Your task to perform on an android device: visit the assistant section in the google photos Image 0: 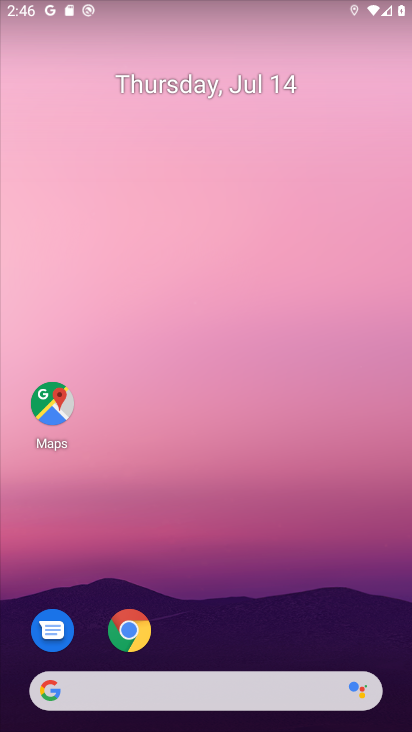
Step 0: drag from (225, 445) to (113, 71)
Your task to perform on an android device: visit the assistant section in the google photos Image 1: 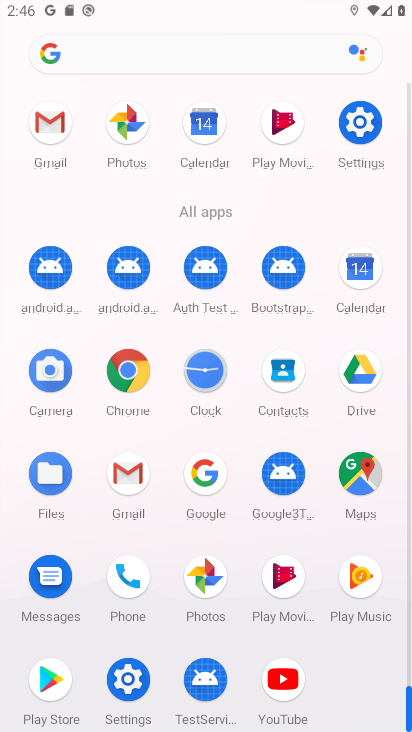
Step 1: click (219, 575)
Your task to perform on an android device: visit the assistant section in the google photos Image 2: 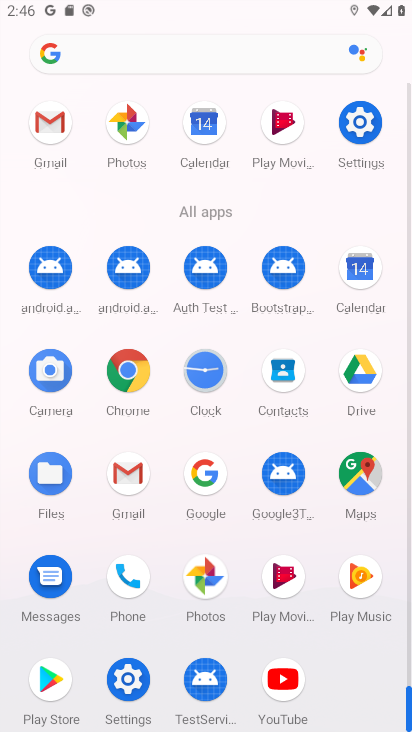
Step 2: click (219, 575)
Your task to perform on an android device: visit the assistant section in the google photos Image 3: 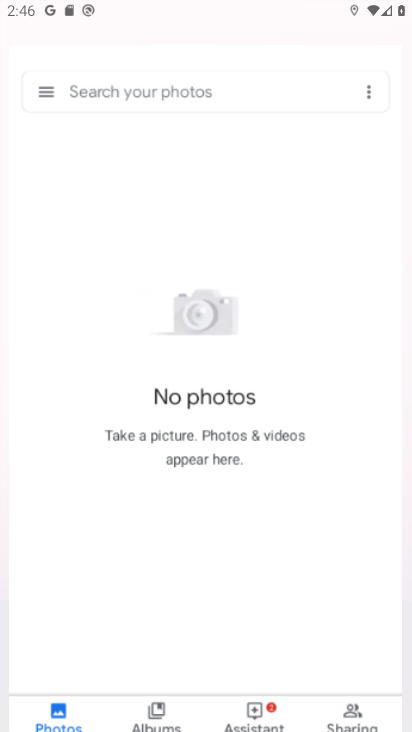
Step 3: click (218, 576)
Your task to perform on an android device: visit the assistant section in the google photos Image 4: 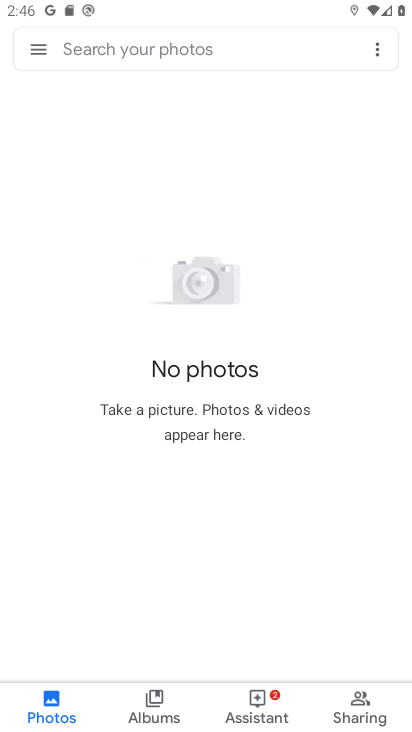
Step 4: drag from (159, 507) to (111, 263)
Your task to perform on an android device: visit the assistant section in the google photos Image 5: 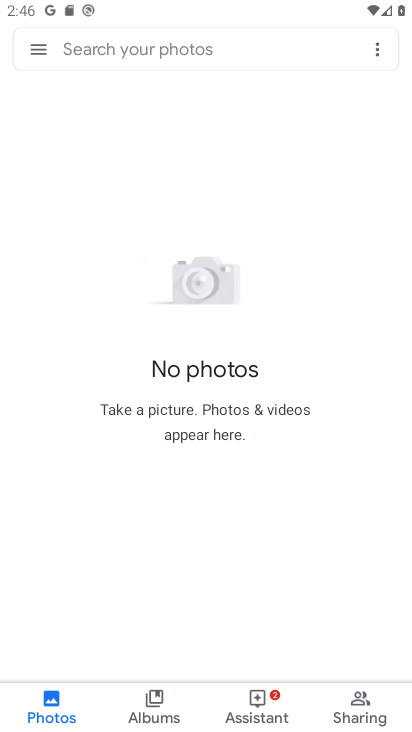
Step 5: drag from (191, 535) to (143, 345)
Your task to perform on an android device: visit the assistant section in the google photos Image 6: 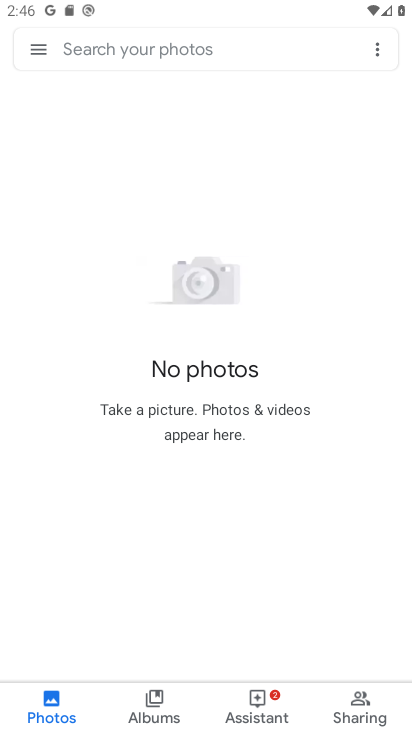
Step 6: click (241, 703)
Your task to perform on an android device: visit the assistant section in the google photos Image 7: 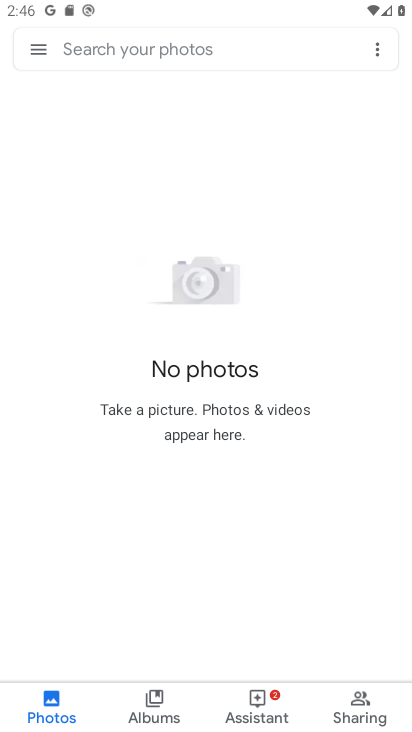
Step 7: click (245, 702)
Your task to perform on an android device: visit the assistant section in the google photos Image 8: 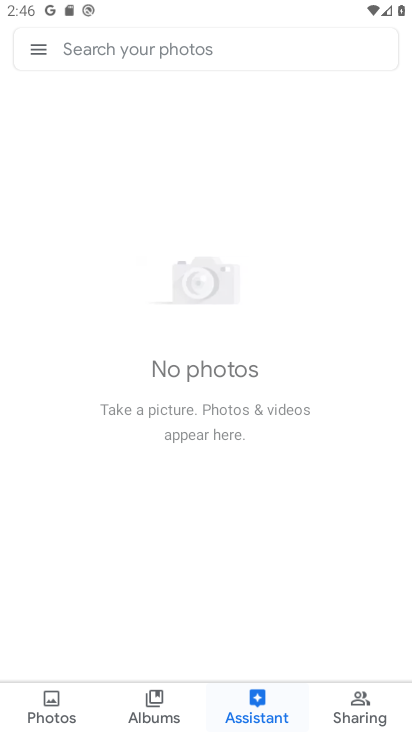
Step 8: click (255, 698)
Your task to perform on an android device: visit the assistant section in the google photos Image 9: 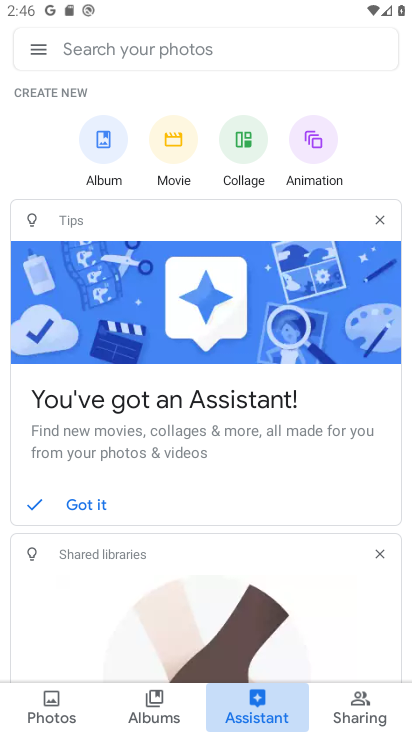
Step 9: click (255, 698)
Your task to perform on an android device: visit the assistant section in the google photos Image 10: 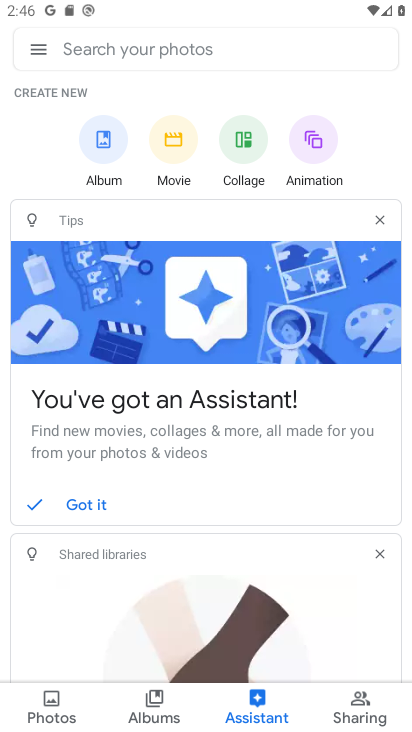
Step 10: task complete